Your task to perform on an android device: Search for sushi restaurants on Maps Image 0: 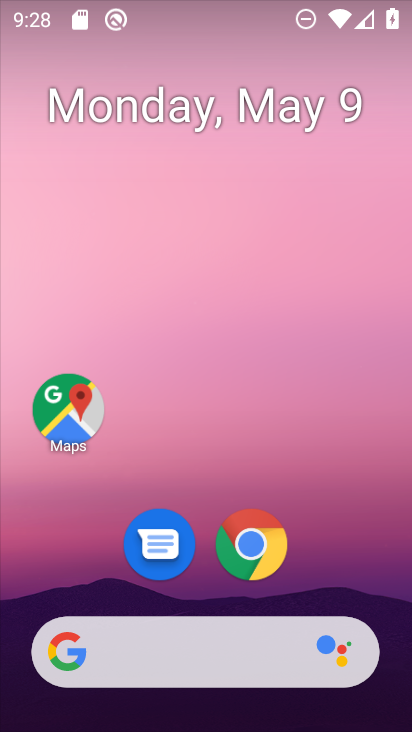
Step 0: click (58, 413)
Your task to perform on an android device: Search for sushi restaurants on Maps Image 1: 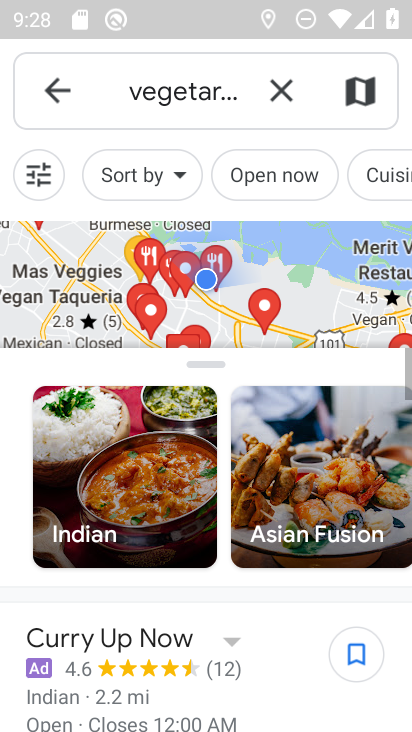
Step 1: click (275, 81)
Your task to perform on an android device: Search for sushi restaurants on Maps Image 2: 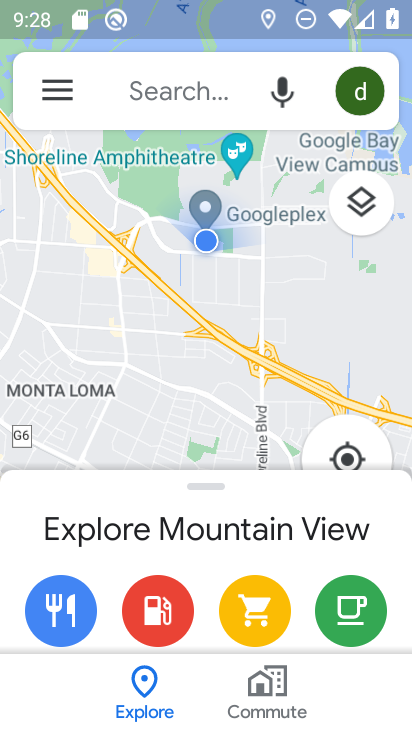
Step 2: click (151, 89)
Your task to perform on an android device: Search for sushi restaurants on Maps Image 3: 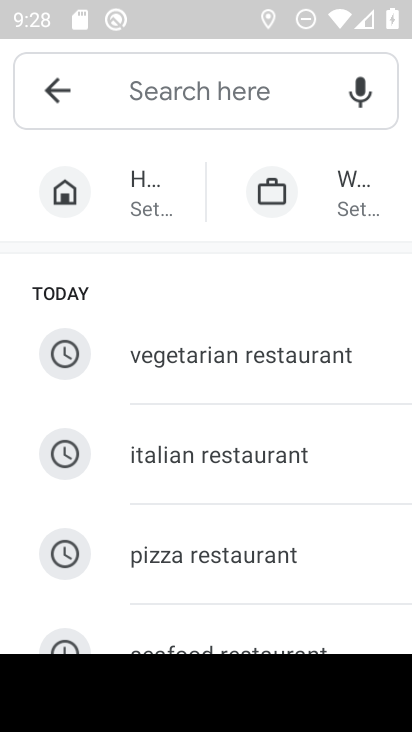
Step 3: drag from (331, 567) to (287, 257)
Your task to perform on an android device: Search for sushi restaurants on Maps Image 4: 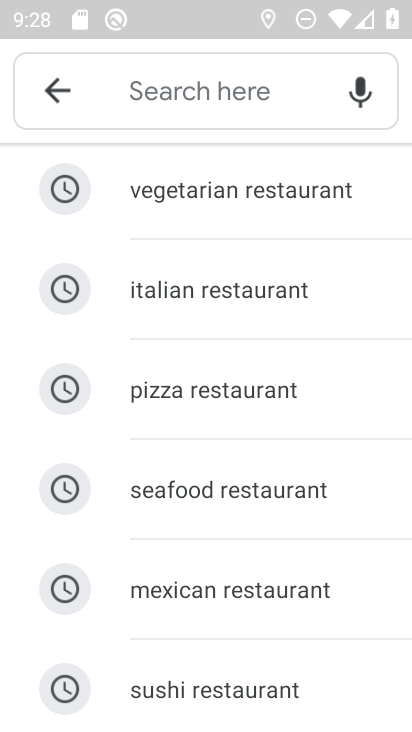
Step 4: click (223, 687)
Your task to perform on an android device: Search for sushi restaurants on Maps Image 5: 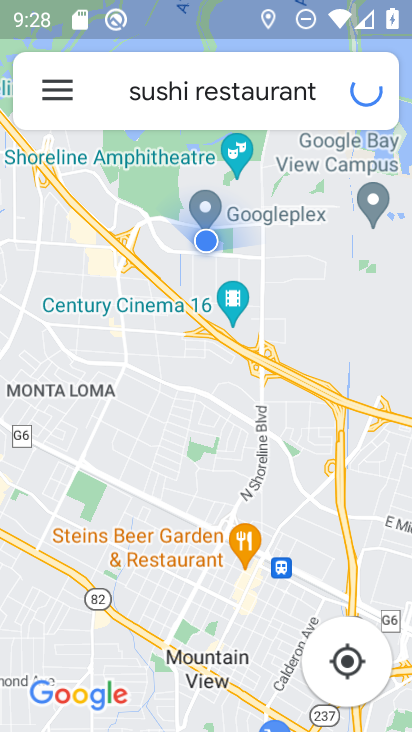
Step 5: click (223, 687)
Your task to perform on an android device: Search for sushi restaurants on Maps Image 6: 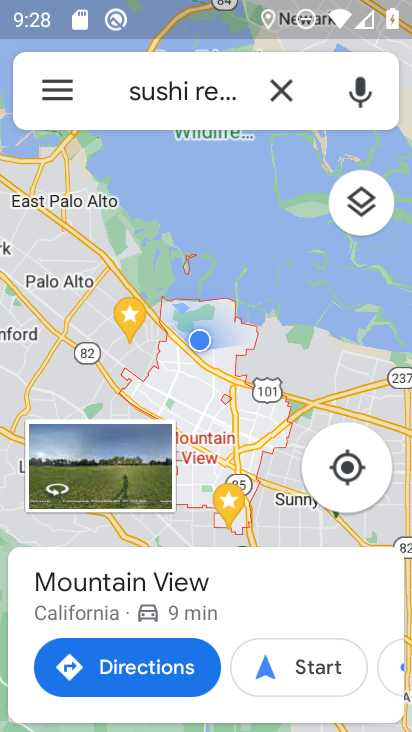
Step 6: task complete